Your task to perform on an android device: Open Yahoo.com Image 0: 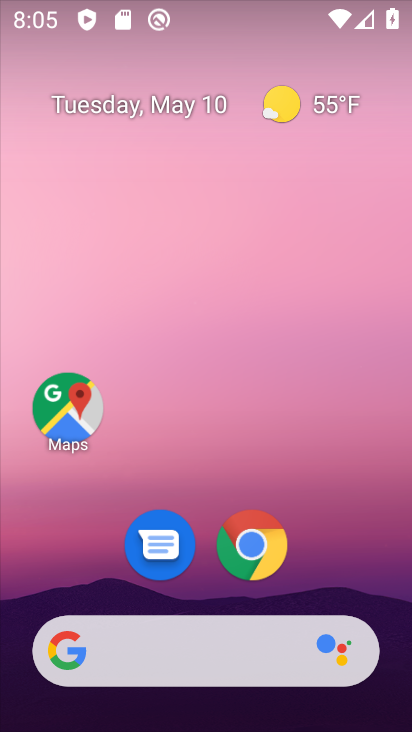
Step 0: click (241, 554)
Your task to perform on an android device: Open Yahoo.com Image 1: 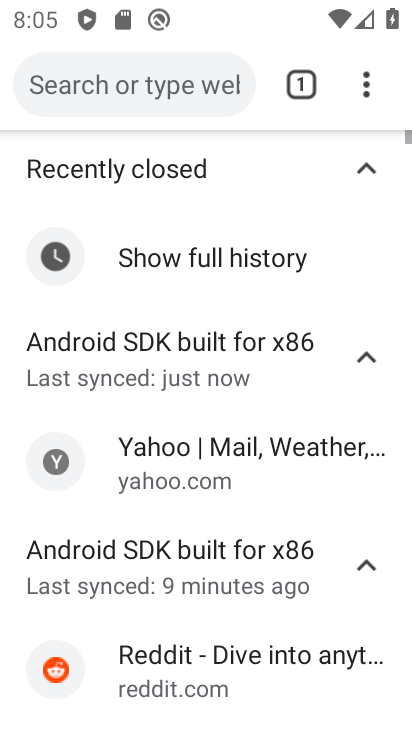
Step 1: click (305, 80)
Your task to perform on an android device: Open Yahoo.com Image 2: 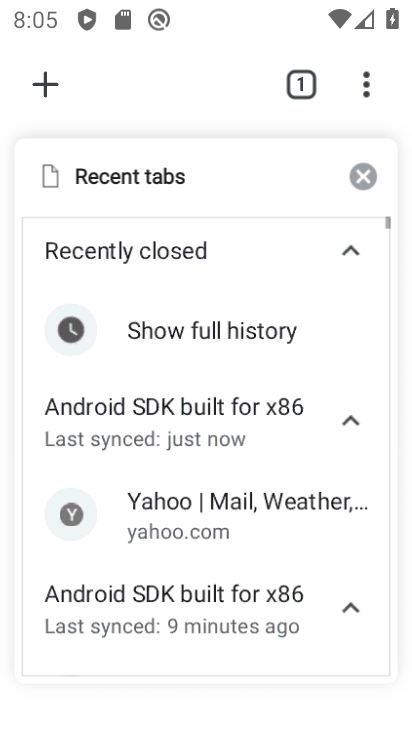
Step 2: click (38, 83)
Your task to perform on an android device: Open Yahoo.com Image 3: 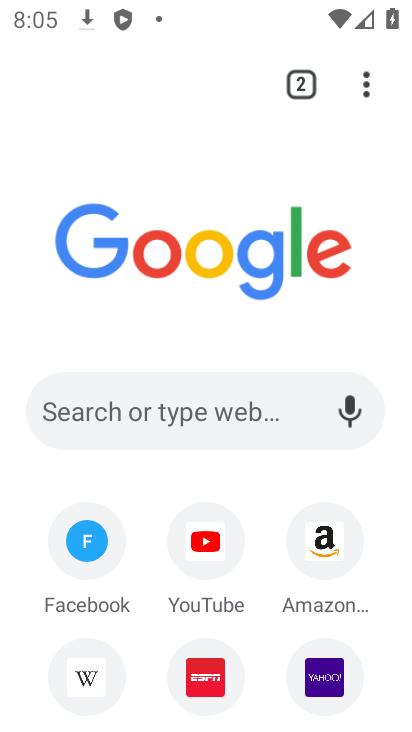
Step 3: click (321, 677)
Your task to perform on an android device: Open Yahoo.com Image 4: 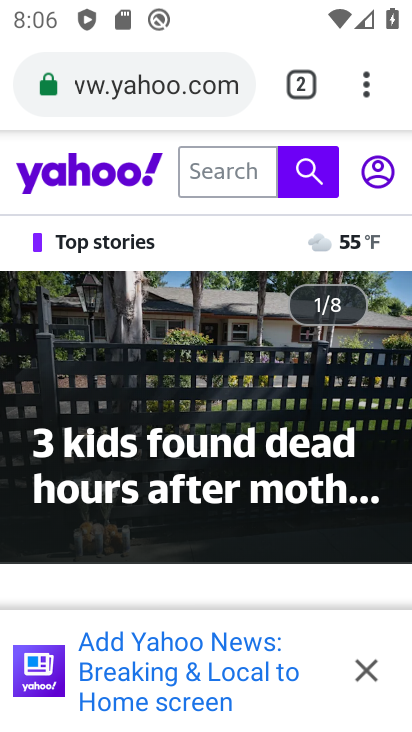
Step 4: task complete